Your task to perform on an android device: change timer sound Image 0: 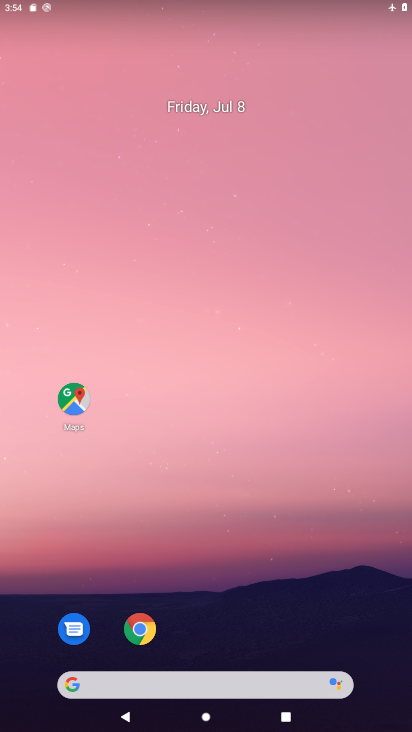
Step 0: drag from (196, 653) to (196, 262)
Your task to perform on an android device: change timer sound Image 1: 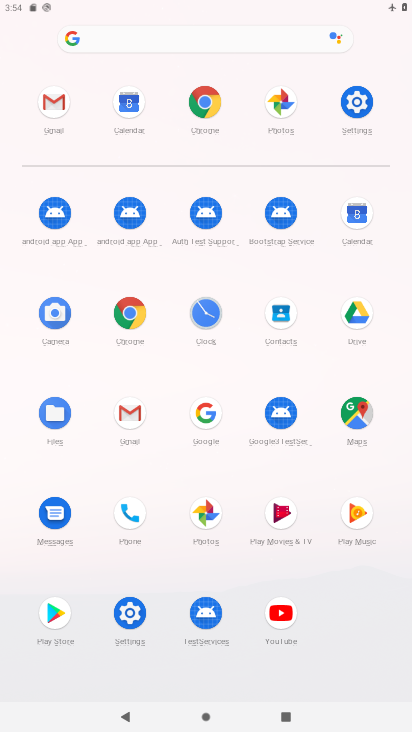
Step 1: click (205, 306)
Your task to perform on an android device: change timer sound Image 2: 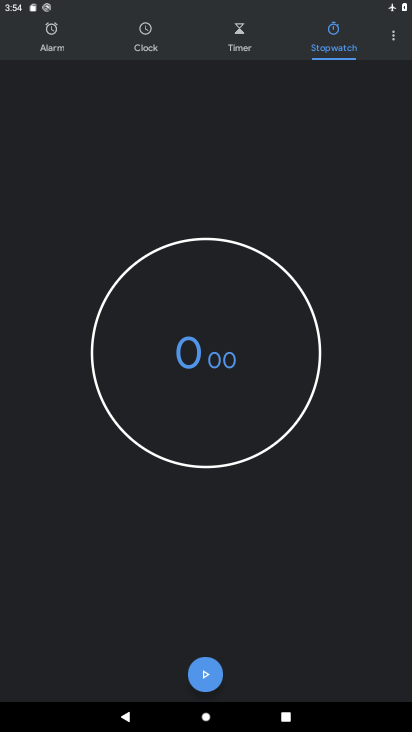
Step 2: click (396, 36)
Your task to perform on an android device: change timer sound Image 3: 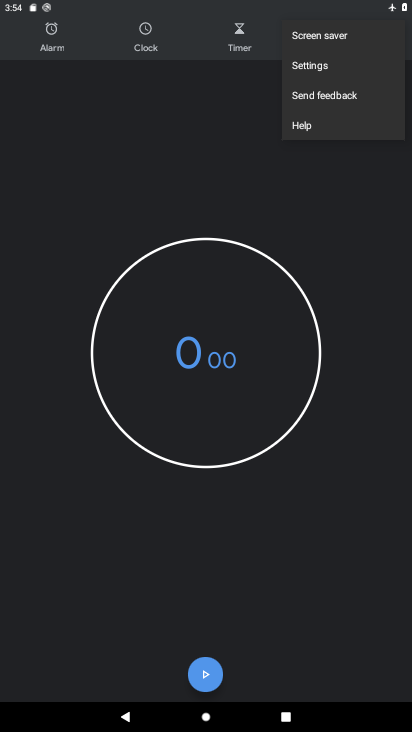
Step 3: click (338, 65)
Your task to perform on an android device: change timer sound Image 4: 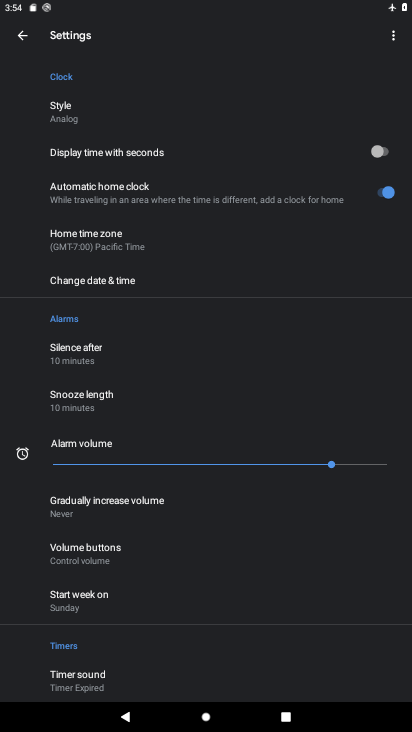
Step 4: click (112, 675)
Your task to perform on an android device: change timer sound Image 5: 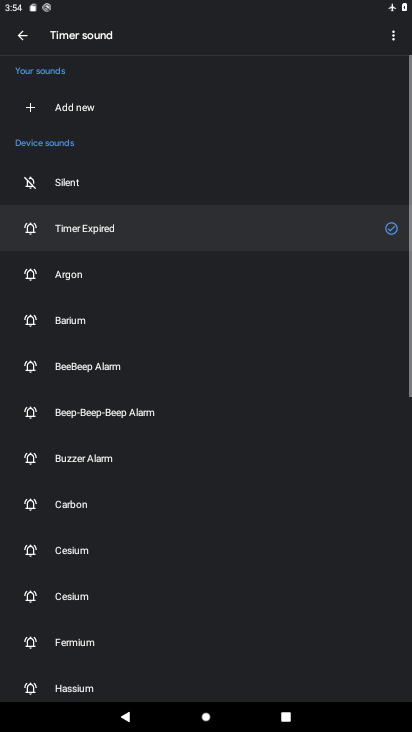
Step 5: click (138, 415)
Your task to perform on an android device: change timer sound Image 6: 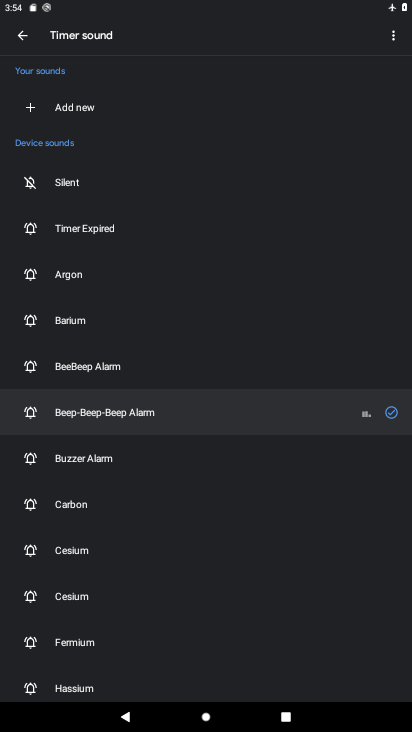
Step 6: task complete